Your task to perform on an android device: turn on data saver in the chrome app Image 0: 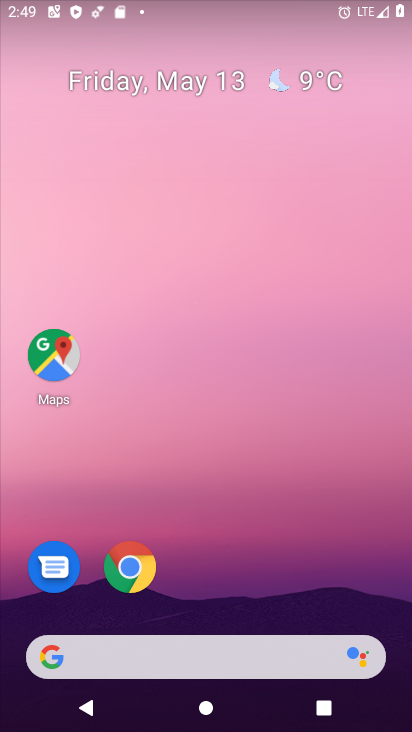
Step 0: click (132, 562)
Your task to perform on an android device: turn on data saver in the chrome app Image 1: 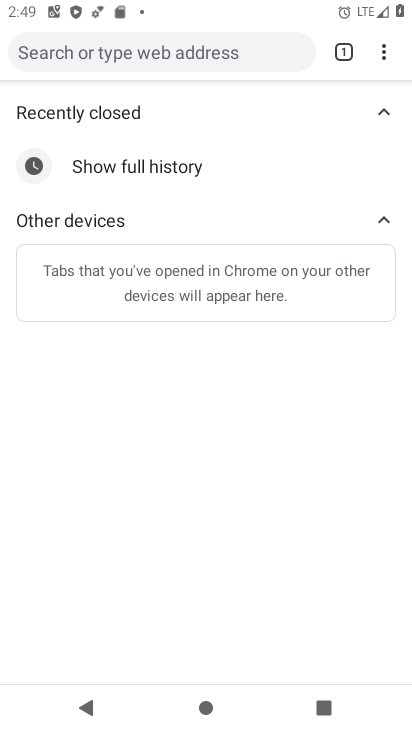
Step 1: click (380, 54)
Your task to perform on an android device: turn on data saver in the chrome app Image 2: 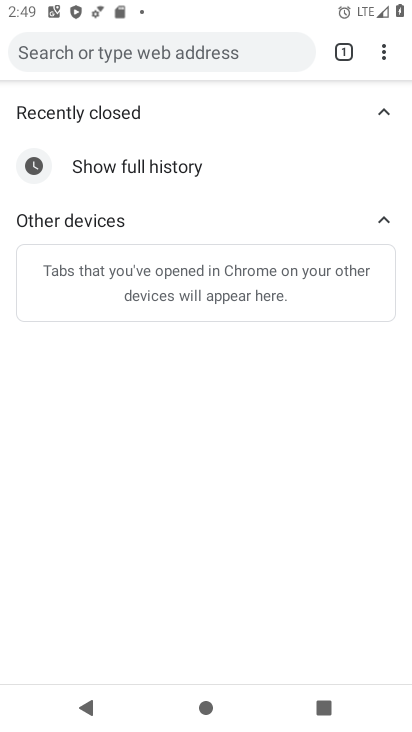
Step 2: click (368, 43)
Your task to perform on an android device: turn on data saver in the chrome app Image 3: 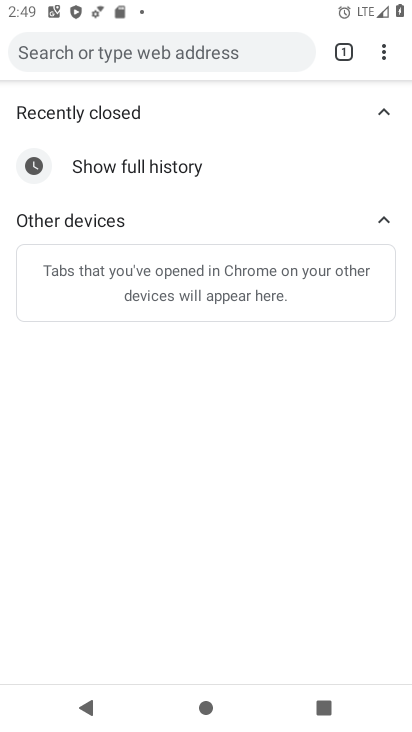
Step 3: click (386, 56)
Your task to perform on an android device: turn on data saver in the chrome app Image 4: 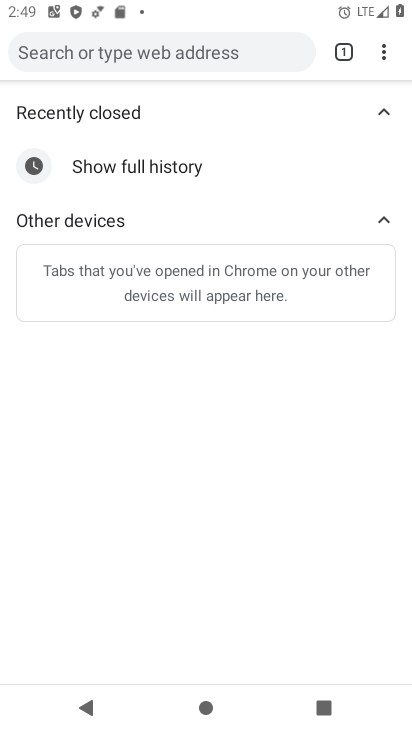
Step 4: click (388, 56)
Your task to perform on an android device: turn on data saver in the chrome app Image 5: 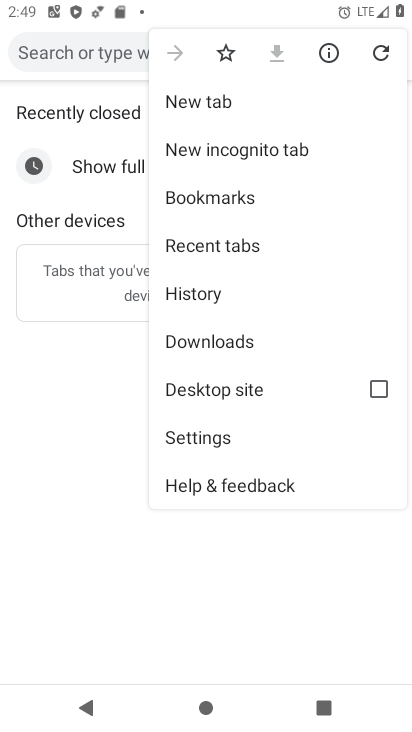
Step 5: click (181, 434)
Your task to perform on an android device: turn on data saver in the chrome app Image 6: 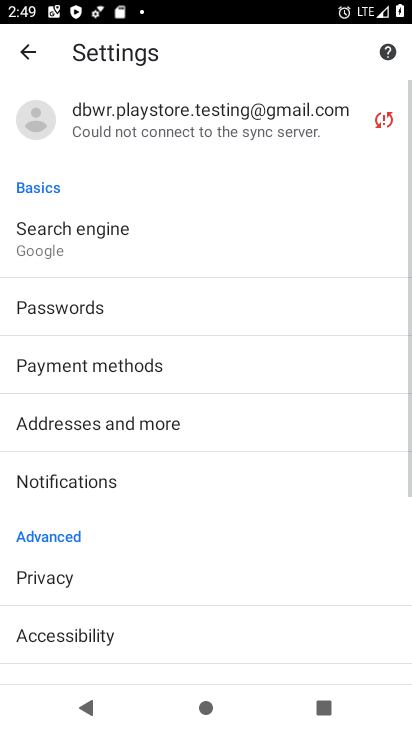
Step 6: drag from (87, 561) to (303, 20)
Your task to perform on an android device: turn on data saver in the chrome app Image 7: 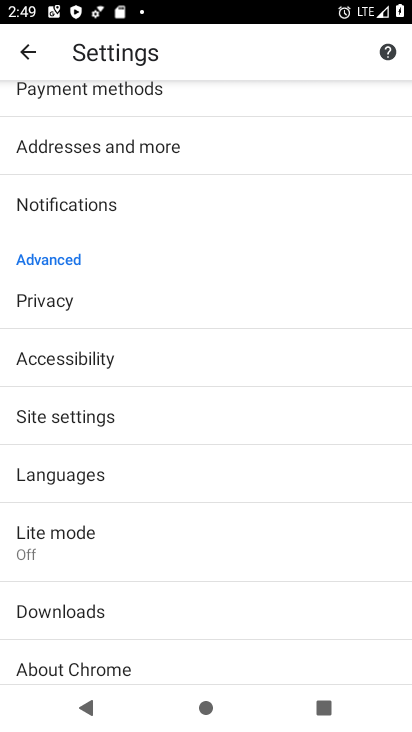
Step 7: click (68, 552)
Your task to perform on an android device: turn on data saver in the chrome app Image 8: 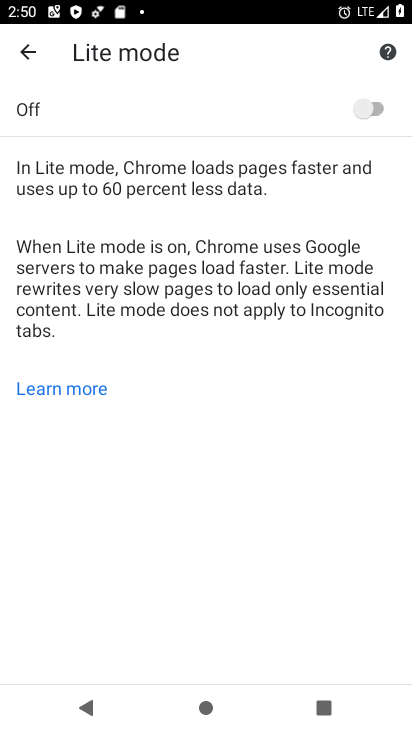
Step 8: click (386, 97)
Your task to perform on an android device: turn on data saver in the chrome app Image 9: 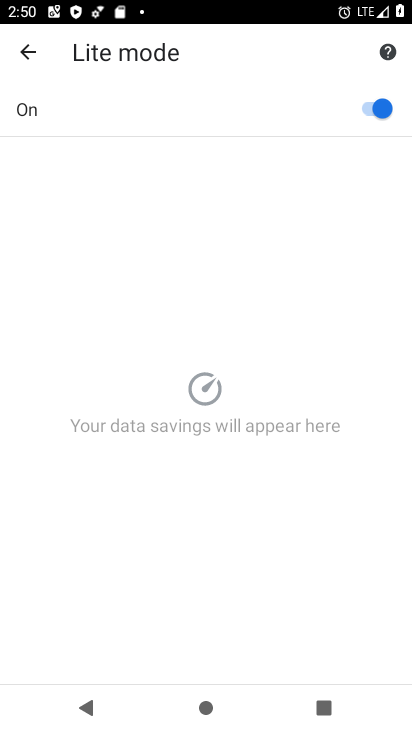
Step 9: task complete